Your task to perform on an android device: View the shopping cart on newegg. Search for "panasonic triple a" on newegg, select the first entry, add it to the cart, then select checkout. Image 0: 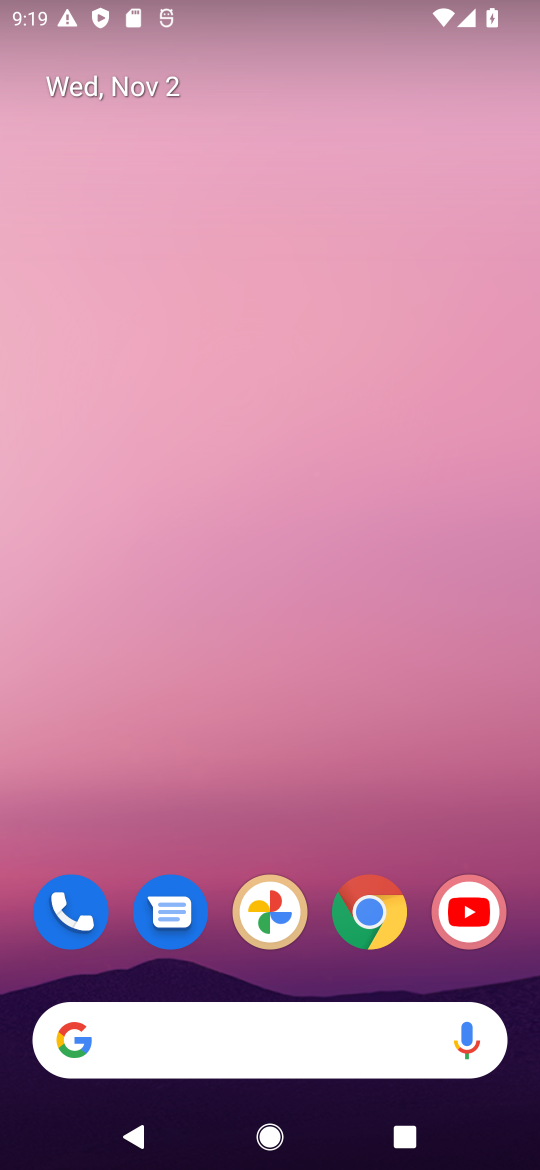
Step 0: drag from (307, 1039) to (424, 7)
Your task to perform on an android device: View the shopping cart on newegg. Search for "panasonic triple a" on newegg, select the first entry, add it to the cart, then select checkout. Image 1: 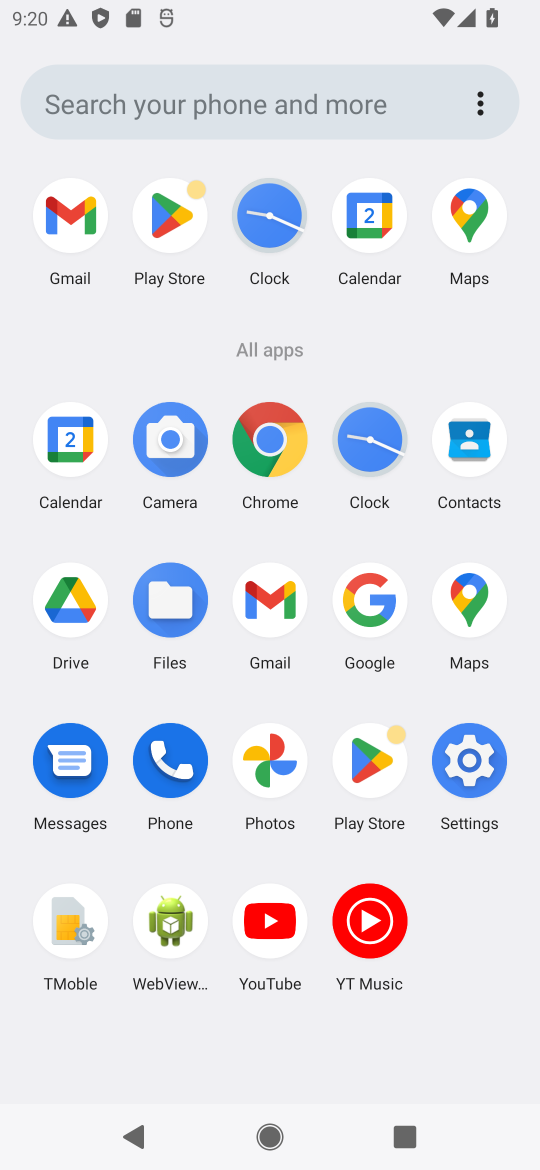
Step 1: click (278, 445)
Your task to perform on an android device: View the shopping cart on newegg. Search for "panasonic triple a" on newegg, select the first entry, add it to the cart, then select checkout. Image 2: 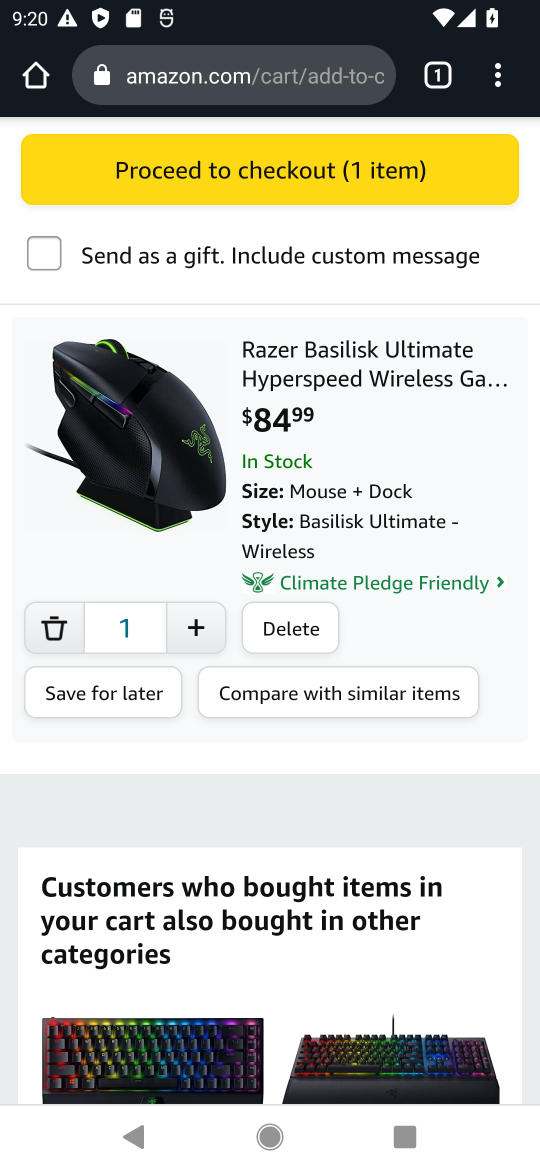
Step 2: click (196, 66)
Your task to perform on an android device: View the shopping cart on newegg. Search for "panasonic triple a" on newegg, select the first entry, add it to the cart, then select checkout. Image 3: 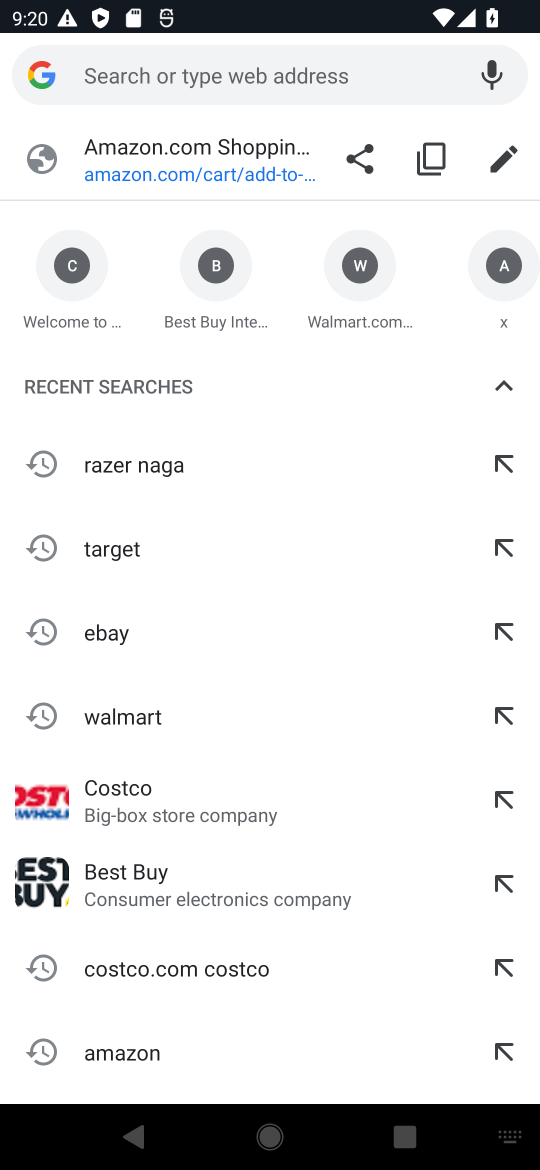
Step 3: type "newegg"
Your task to perform on an android device: View the shopping cart on newegg. Search for "panasonic triple a" on newegg, select the first entry, add it to the cart, then select checkout. Image 4: 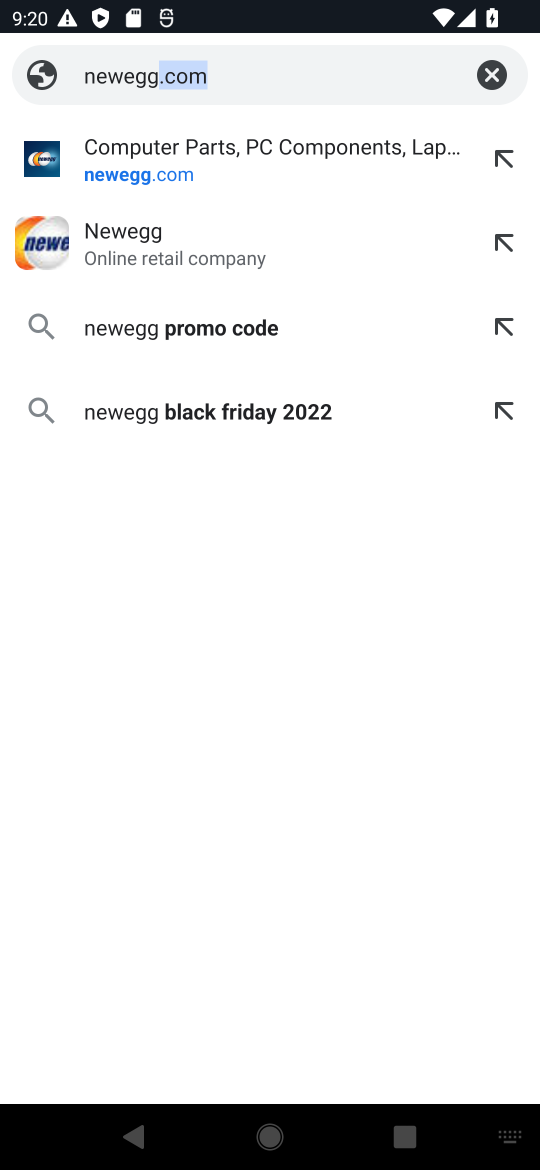
Step 4: click (147, 169)
Your task to perform on an android device: View the shopping cart on newegg. Search for "panasonic triple a" on newegg, select the first entry, add it to the cart, then select checkout. Image 5: 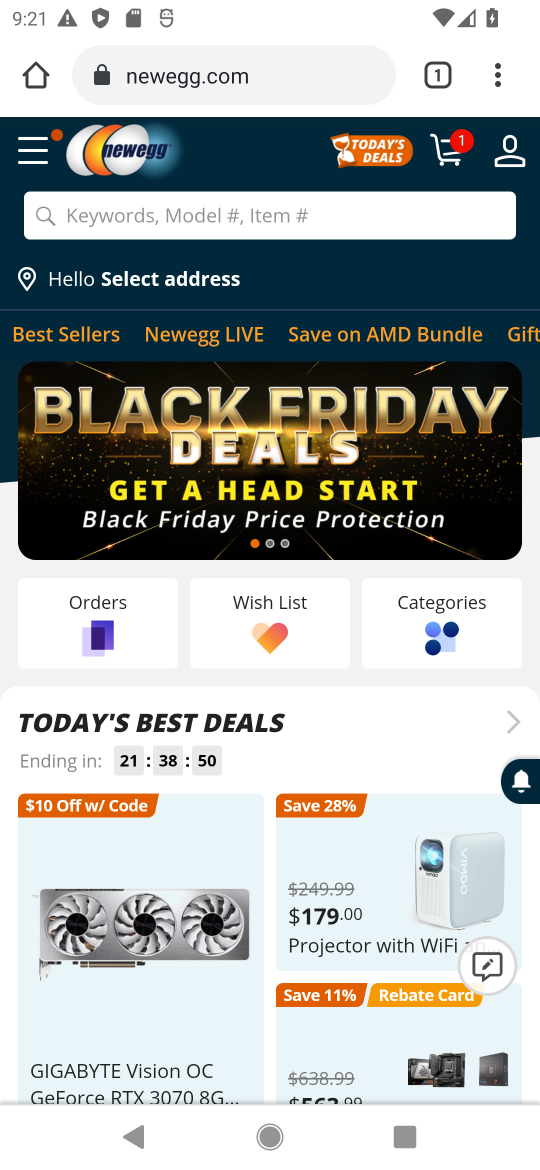
Step 5: click (166, 208)
Your task to perform on an android device: View the shopping cart on newegg. Search for "panasonic triple a" on newegg, select the first entry, add it to the cart, then select checkout. Image 6: 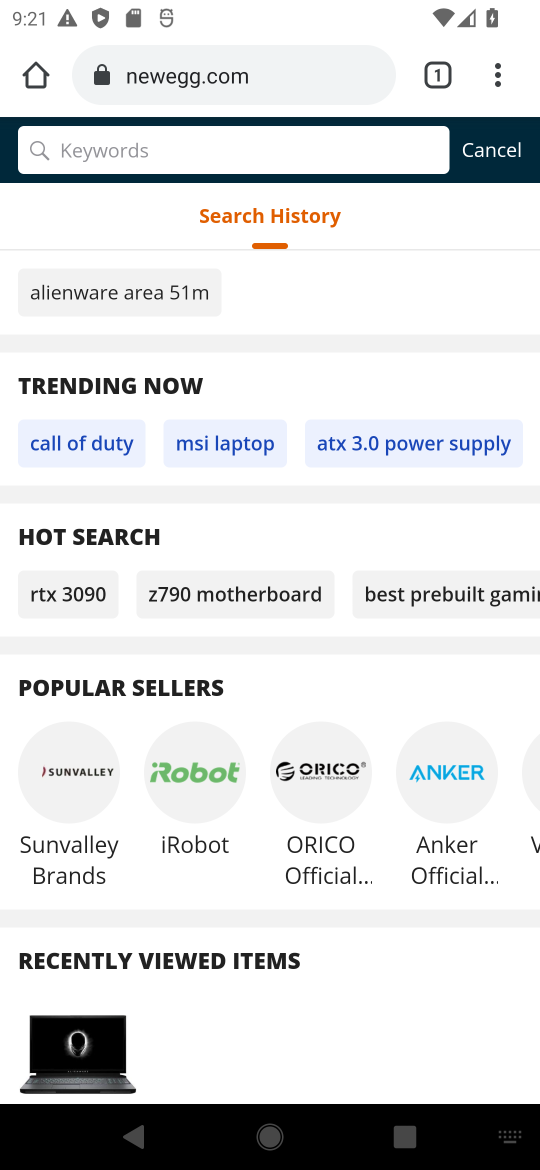
Step 6: type "panasonic triple a"
Your task to perform on an android device: View the shopping cart on newegg. Search for "panasonic triple a" on newegg, select the first entry, add it to the cart, then select checkout. Image 7: 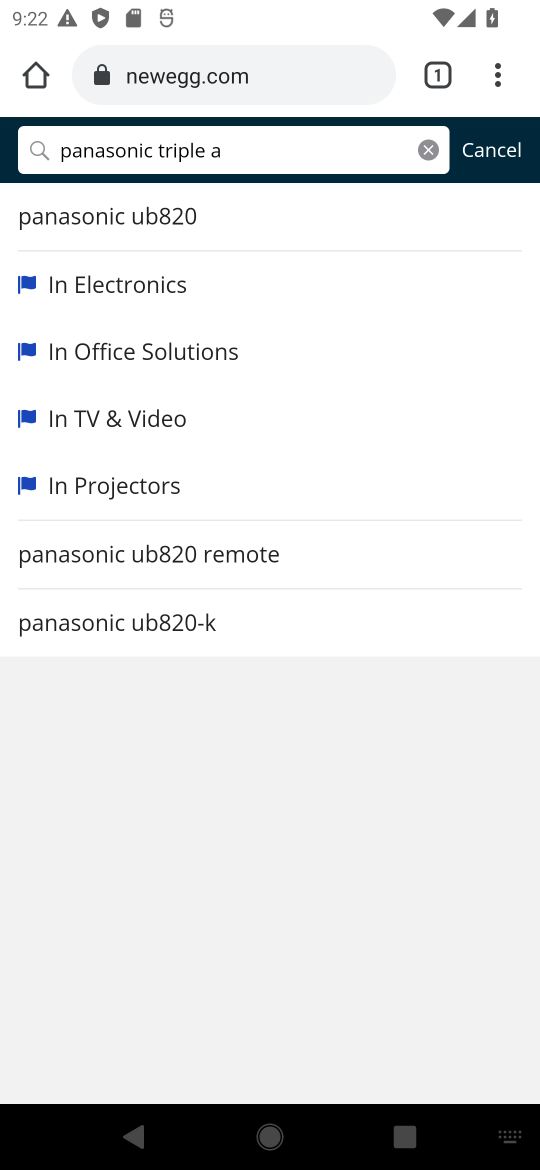
Step 7: click (91, 210)
Your task to perform on an android device: View the shopping cart on newegg. Search for "panasonic triple a" on newegg, select the first entry, add it to the cart, then select checkout. Image 8: 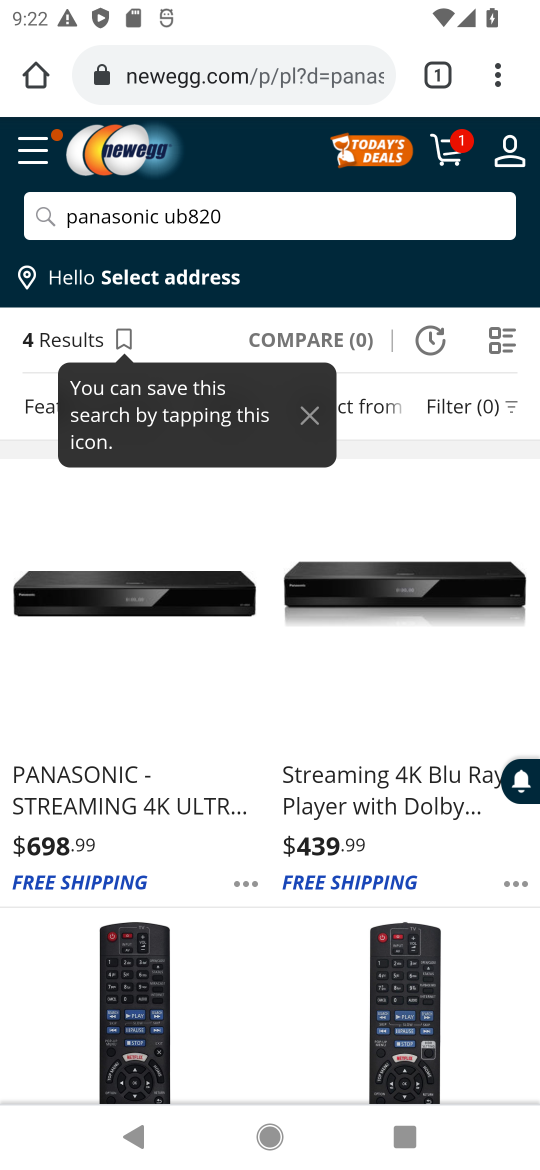
Step 8: click (113, 630)
Your task to perform on an android device: View the shopping cart on newegg. Search for "panasonic triple a" on newegg, select the first entry, add it to the cart, then select checkout. Image 9: 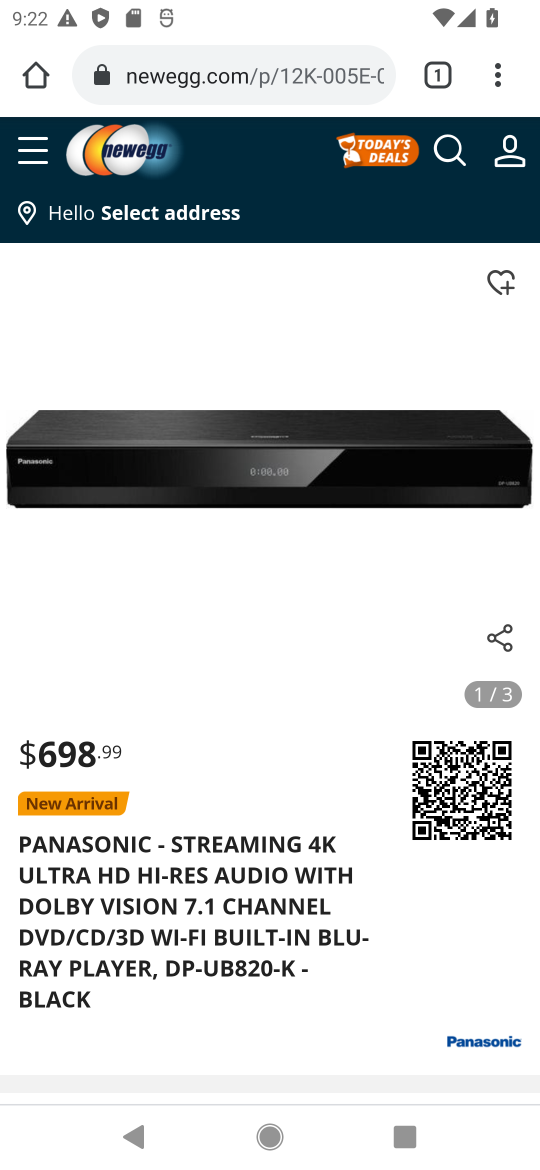
Step 9: click (292, 1055)
Your task to perform on an android device: View the shopping cart on newegg. Search for "panasonic triple a" on newegg, select the first entry, add it to the cart, then select checkout. Image 10: 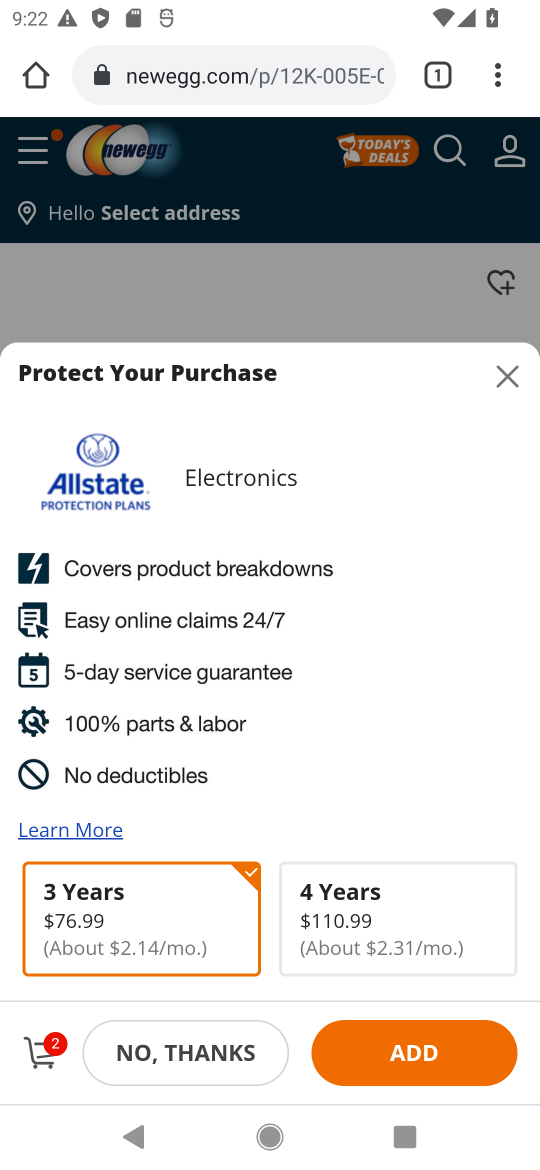
Step 10: task complete